Your task to perform on an android device: Turn off the flashlight Image 0: 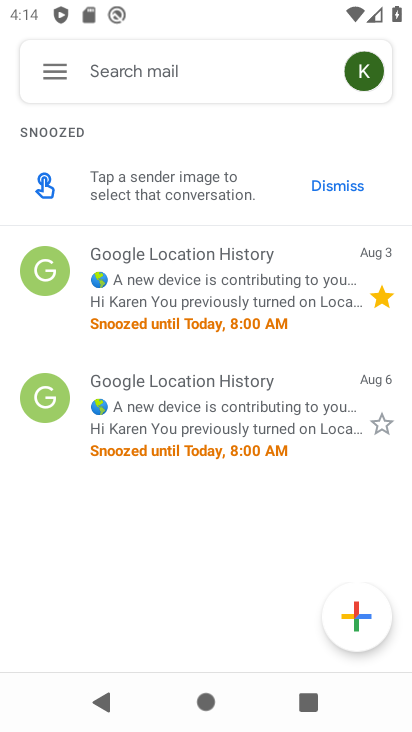
Step 0: press home button
Your task to perform on an android device: Turn off the flashlight Image 1: 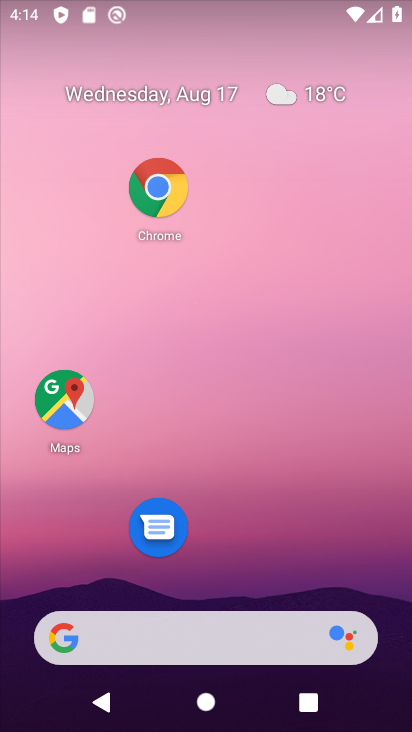
Step 1: drag from (223, 586) to (242, 73)
Your task to perform on an android device: Turn off the flashlight Image 2: 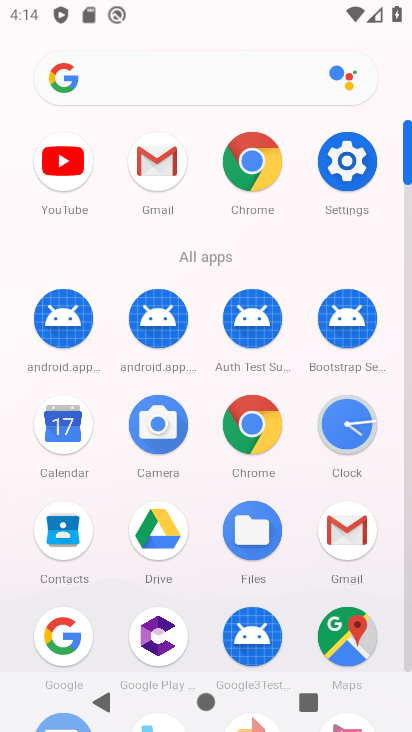
Step 2: click (335, 146)
Your task to perform on an android device: Turn off the flashlight Image 3: 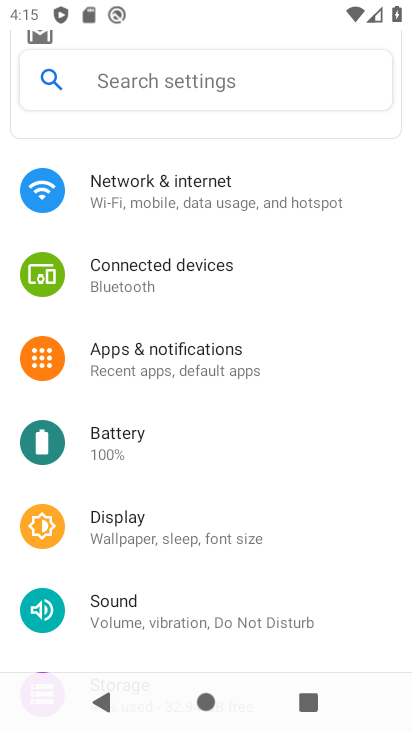
Step 3: task complete